Your task to perform on an android device: turn pop-ups on in chrome Image 0: 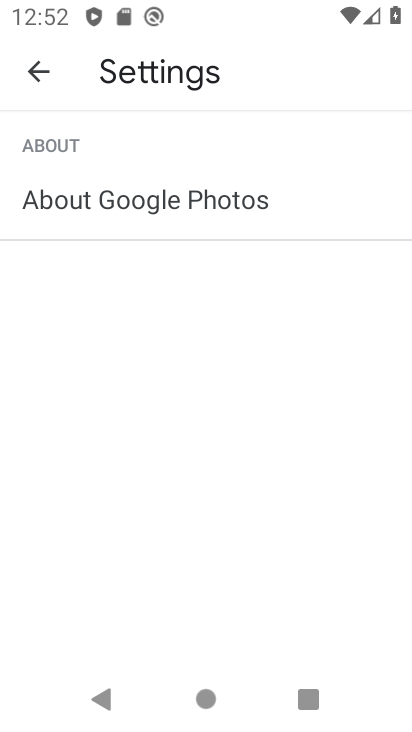
Step 0: press home button
Your task to perform on an android device: turn pop-ups on in chrome Image 1: 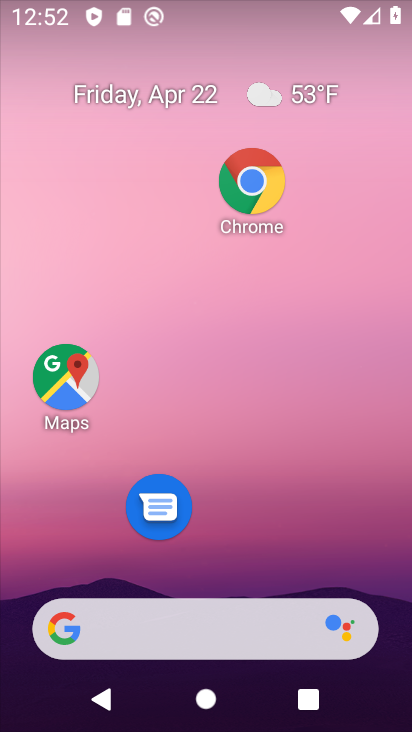
Step 1: click (263, 197)
Your task to perform on an android device: turn pop-ups on in chrome Image 2: 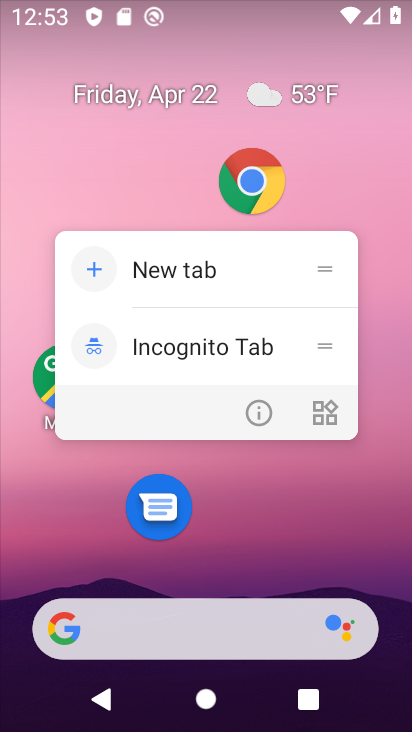
Step 2: click (251, 411)
Your task to perform on an android device: turn pop-ups on in chrome Image 3: 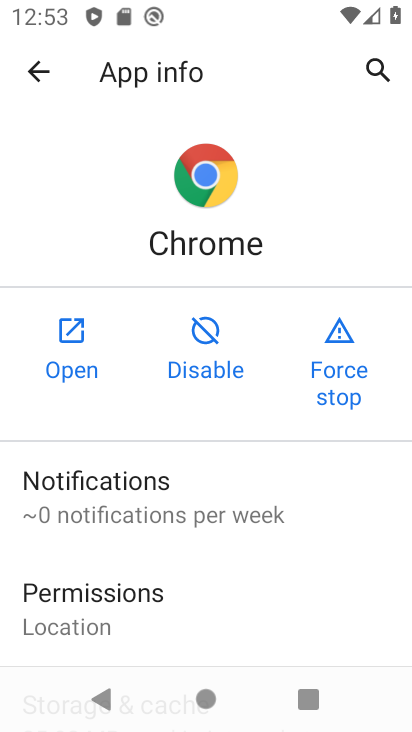
Step 3: click (69, 364)
Your task to perform on an android device: turn pop-ups on in chrome Image 4: 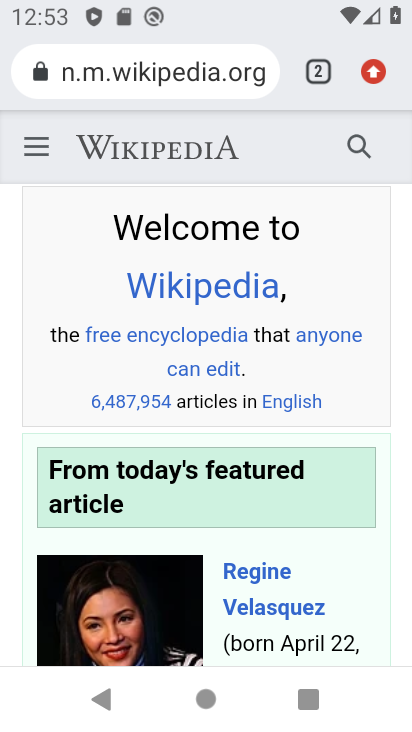
Step 4: click (380, 79)
Your task to perform on an android device: turn pop-ups on in chrome Image 5: 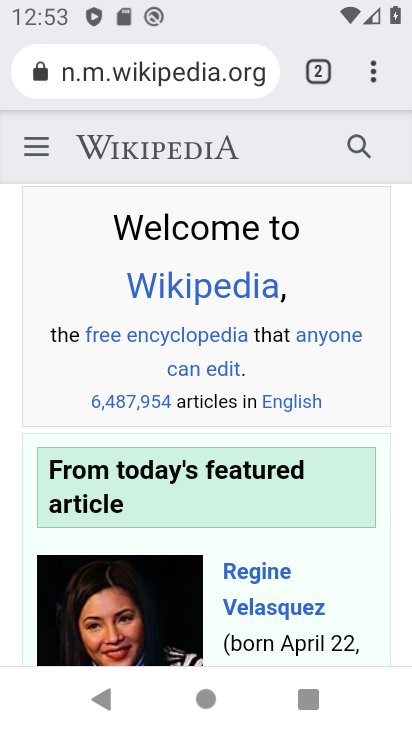
Step 5: click (373, 73)
Your task to perform on an android device: turn pop-ups on in chrome Image 6: 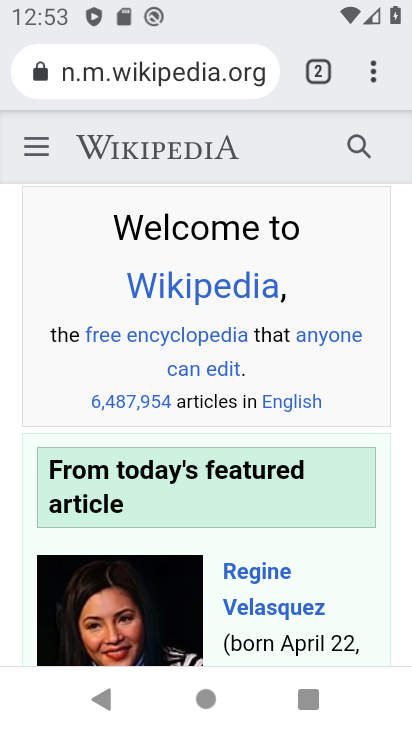
Step 6: click (363, 74)
Your task to perform on an android device: turn pop-ups on in chrome Image 7: 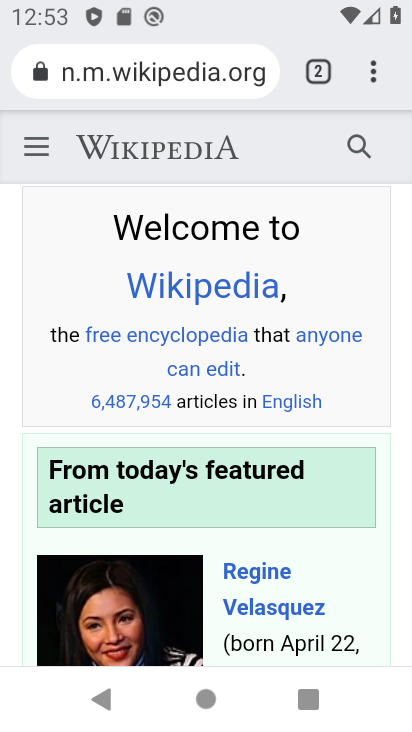
Step 7: click (368, 73)
Your task to perform on an android device: turn pop-ups on in chrome Image 8: 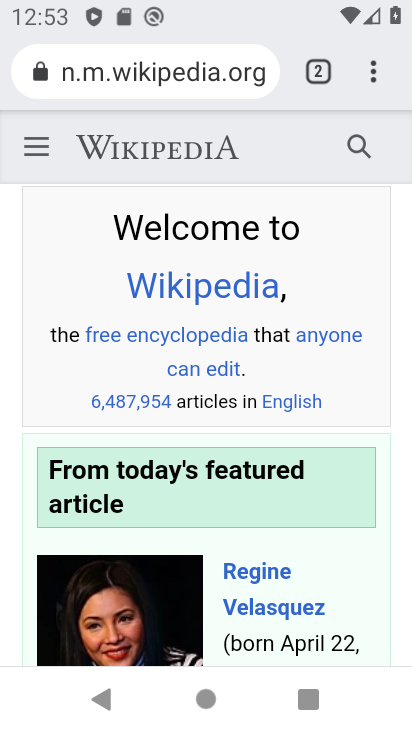
Step 8: click (369, 77)
Your task to perform on an android device: turn pop-ups on in chrome Image 9: 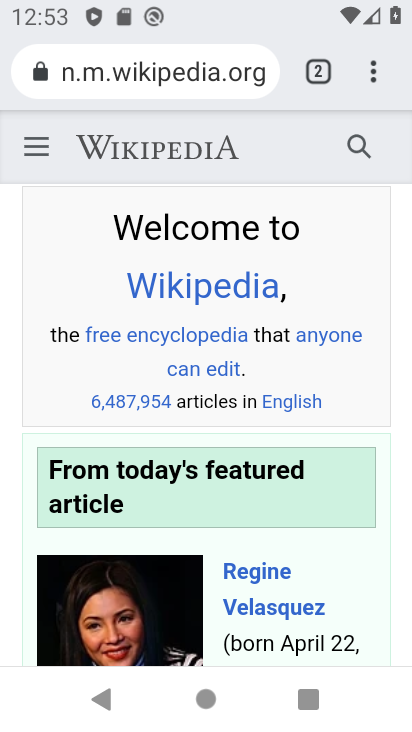
Step 9: click (375, 72)
Your task to perform on an android device: turn pop-ups on in chrome Image 10: 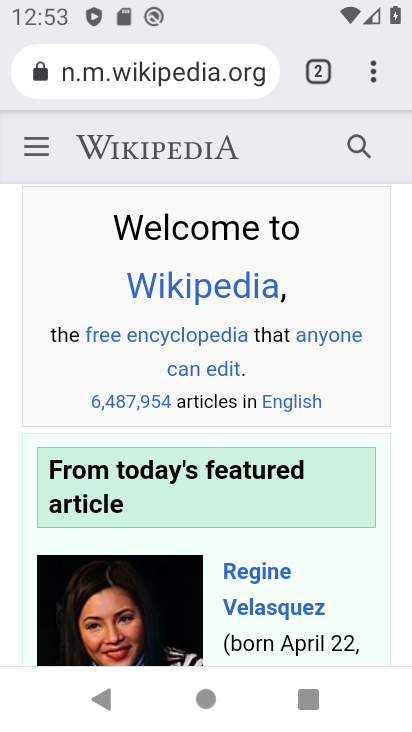
Step 10: click (376, 71)
Your task to perform on an android device: turn pop-ups on in chrome Image 11: 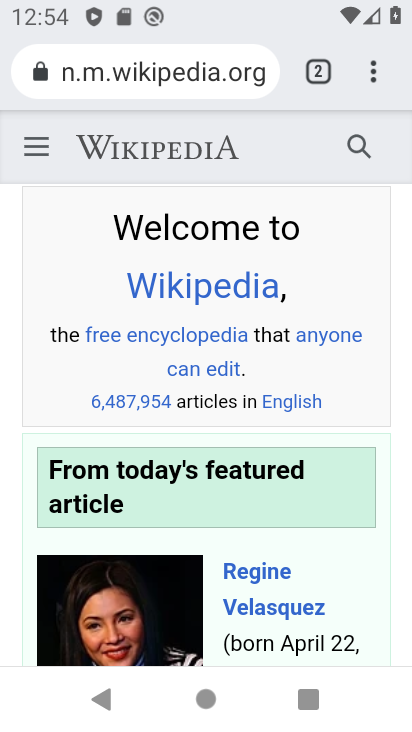
Step 11: click (371, 77)
Your task to perform on an android device: turn pop-ups on in chrome Image 12: 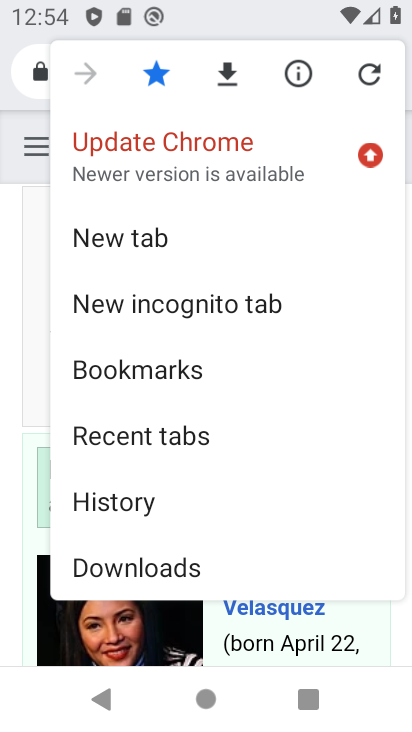
Step 12: drag from (289, 491) to (241, 140)
Your task to perform on an android device: turn pop-ups on in chrome Image 13: 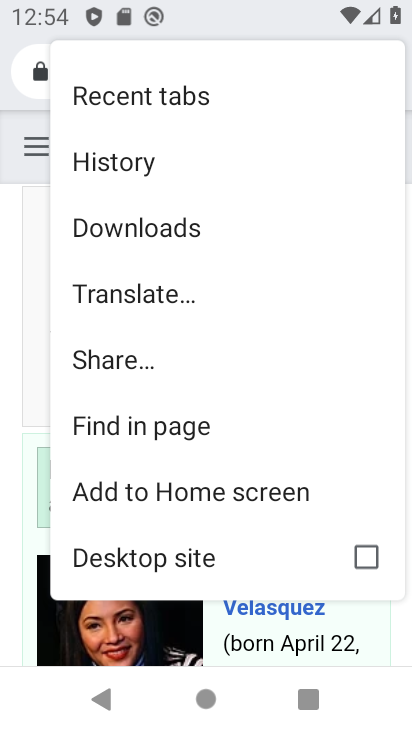
Step 13: drag from (223, 466) to (224, 150)
Your task to perform on an android device: turn pop-ups on in chrome Image 14: 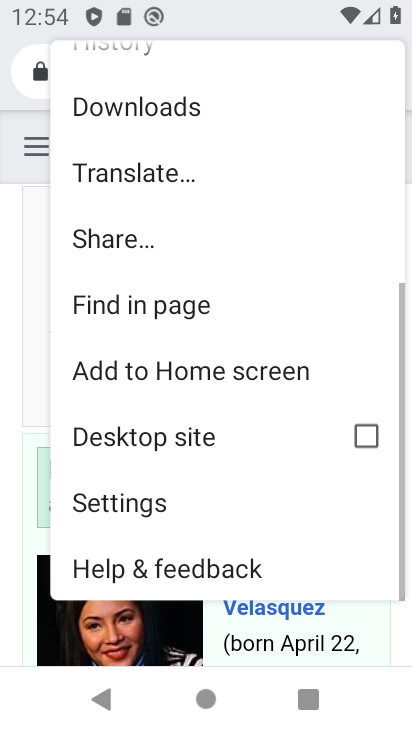
Step 14: click (192, 505)
Your task to perform on an android device: turn pop-ups on in chrome Image 15: 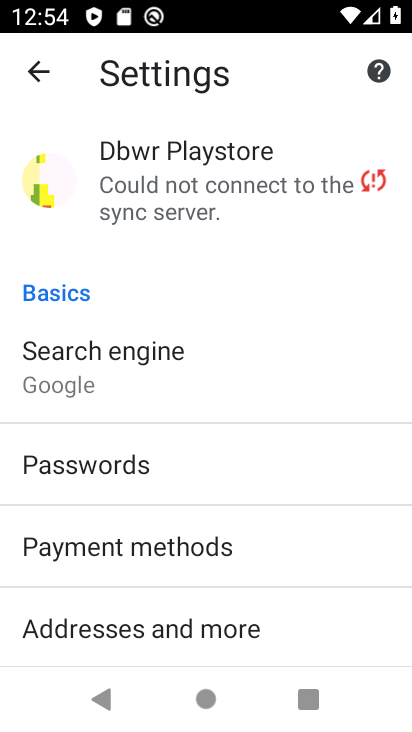
Step 15: drag from (218, 567) to (254, 229)
Your task to perform on an android device: turn pop-ups on in chrome Image 16: 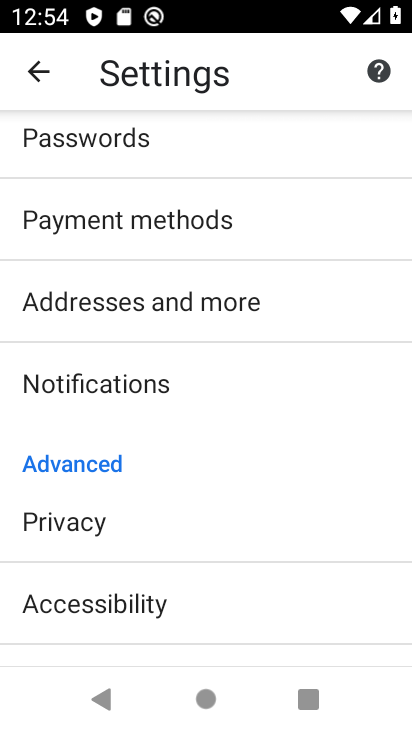
Step 16: drag from (205, 554) to (252, 285)
Your task to perform on an android device: turn pop-ups on in chrome Image 17: 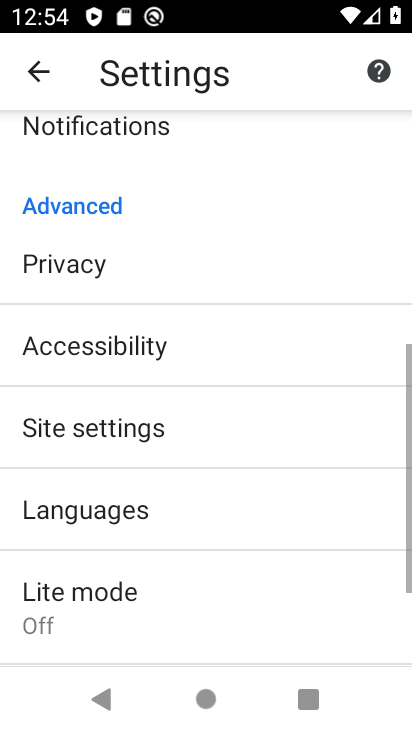
Step 17: click (157, 437)
Your task to perform on an android device: turn pop-ups on in chrome Image 18: 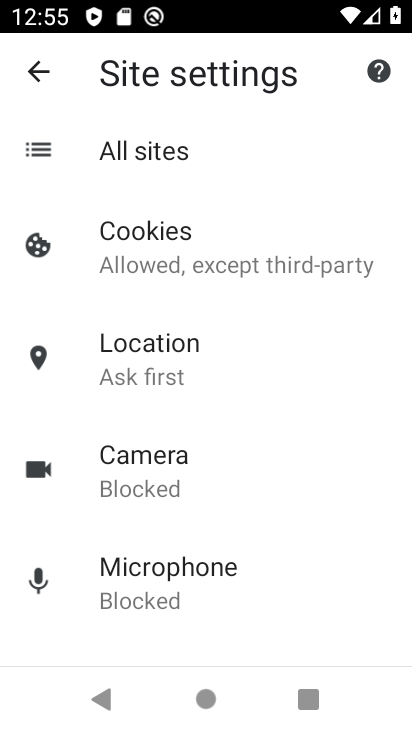
Step 18: drag from (220, 280) to (255, 138)
Your task to perform on an android device: turn pop-ups on in chrome Image 19: 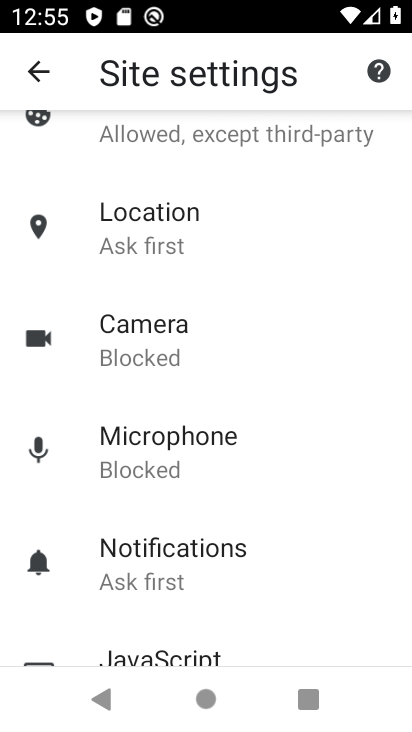
Step 19: drag from (166, 496) to (238, 233)
Your task to perform on an android device: turn pop-ups on in chrome Image 20: 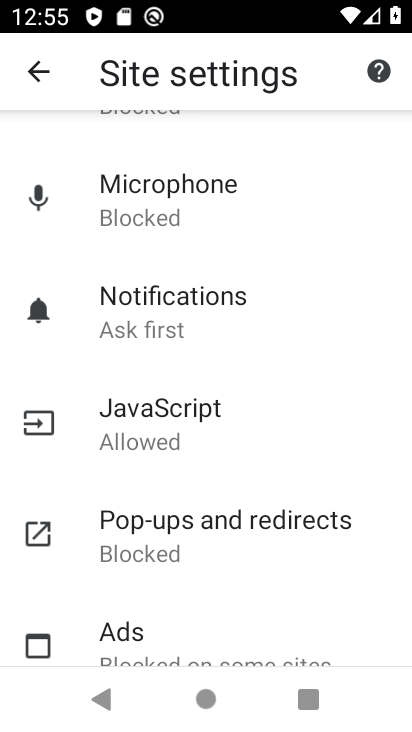
Step 20: click (208, 525)
Your task to perform on an android device: turn pop-ups on in chrome Image 21: 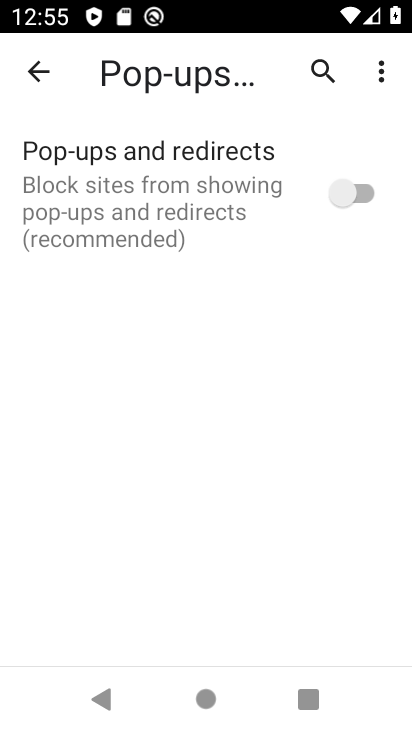
Step 21: click (352, 194)
Your task to perform on an android device: turn pop-ups on in chrome Image 22: 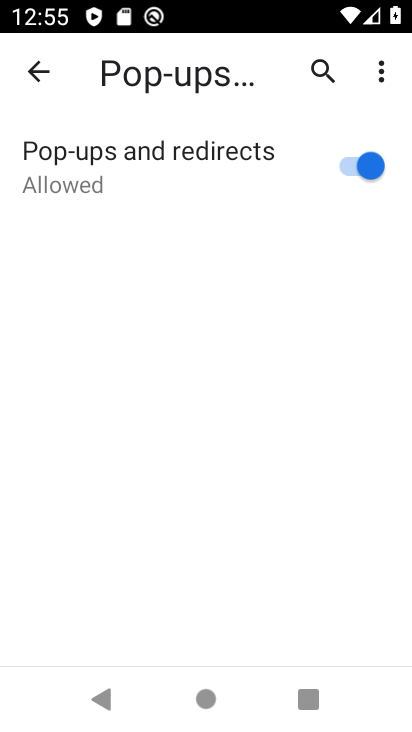
Step 22: task complete